Your task to perform on an android device: toggle translation in the chrome app Image 0: 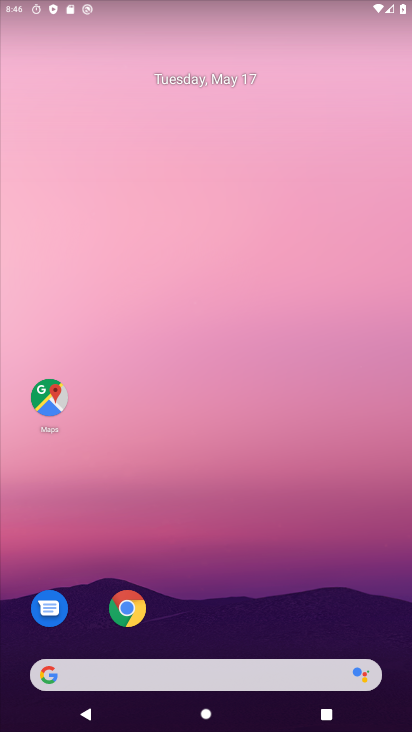
Step 0: drag from (244, 579) to (249, 95)
Your task to perform on an android device: toggle translation in the chrome app Image 1: 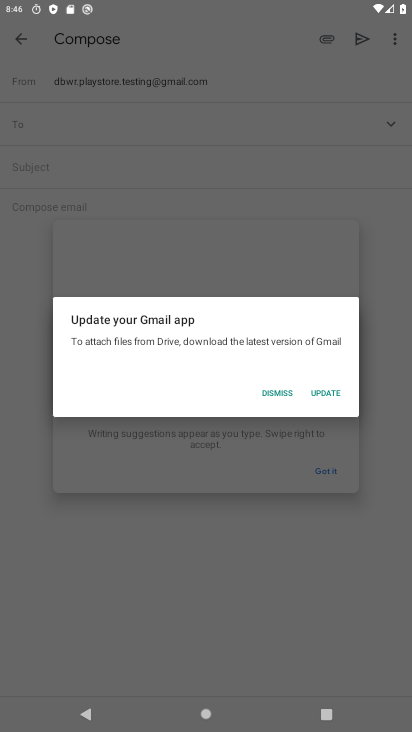
Step 1: press home button
Your task to perform on an android device: toggle translation in the chrome app Image 2: 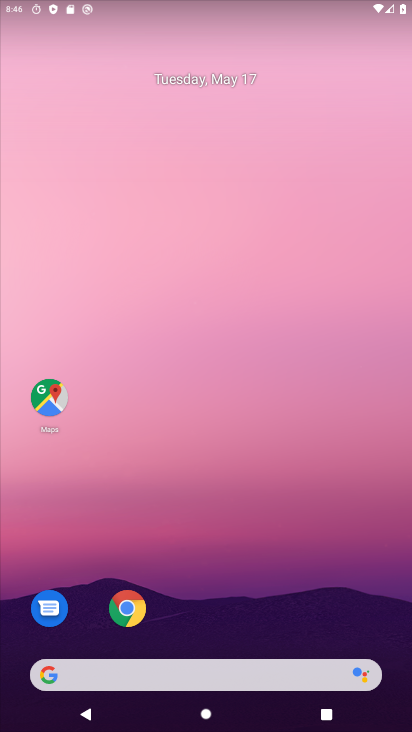
Step 2: drag from (259, 642) to (247, 193)
Your task to perform on an android device: toggle translation in the chrome app Image 3: 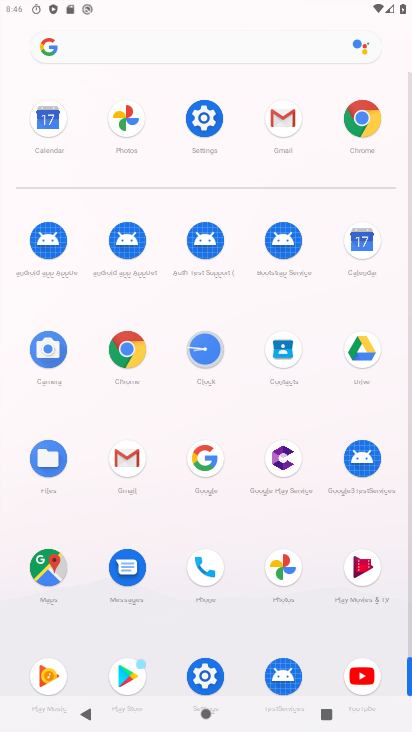
Step 3: click (119, 360)
Your task to perform on an android device: toggle translation in the chrome app Image 4: 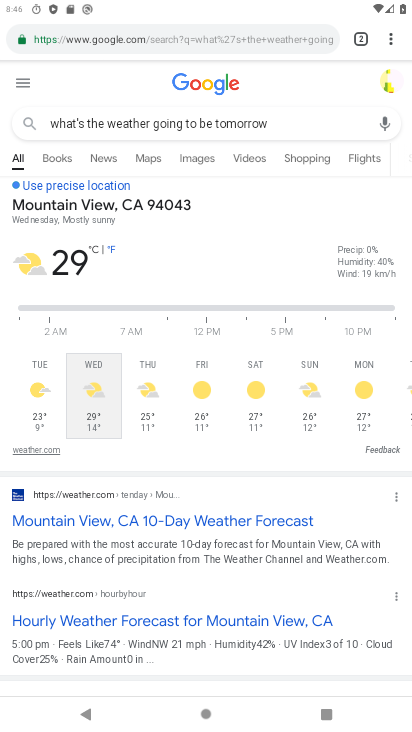
Step 4: click (287, 34)
Your task to perform on an android device: toggle translation in the chrome app Image 5: 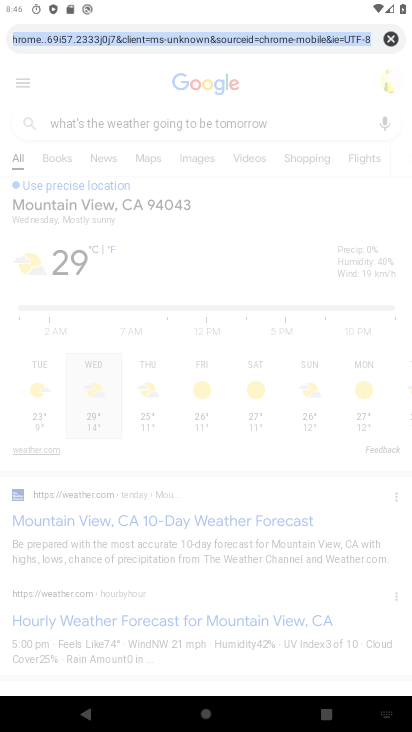
Step 5: click (384, 35)
Your task to perform on an android device: toggle translation in the chrome app Image 6: 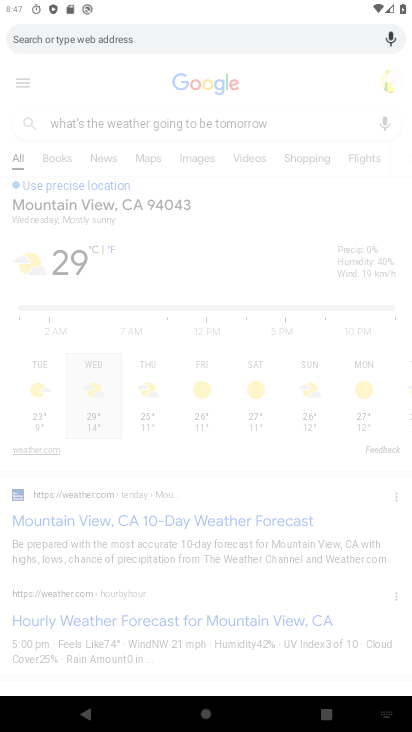
Step 6: press back button
Your task to perform on an android device: toggle translation in the chrome app Image 7: 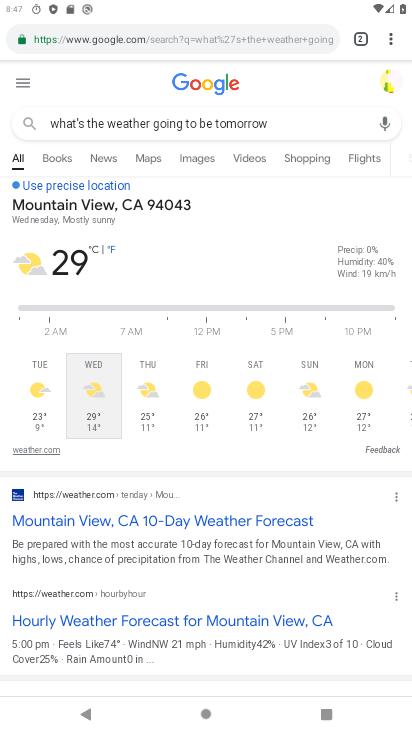
Step 7: drag from (390, 40) to (265, 435)
Your task to perform on an android device: toggle translation in the chrome app Image 8: 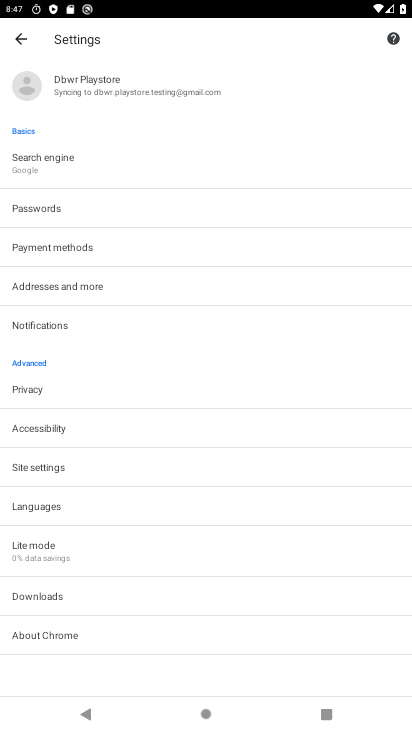
Step 8: drag from (112, 613) to (138, 320)
Your task to perform on an android device: toggle translation in the chrome app Image 9: 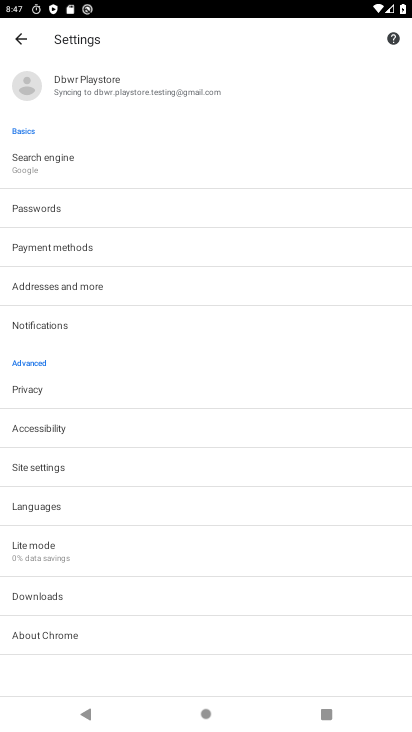
Step 9: click (106, 512)
Your task to perform on an android device: toggle translation in the chrome app Image 10: 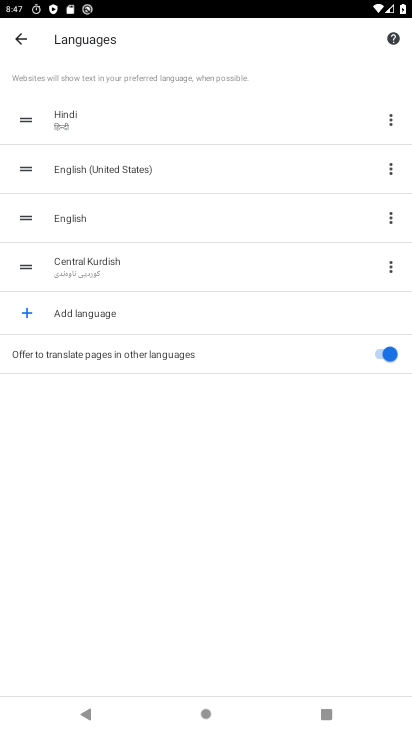
Step 10: click (371, 355)
Your task to perform on an android device: toggle translation in the chrome app Image 11: 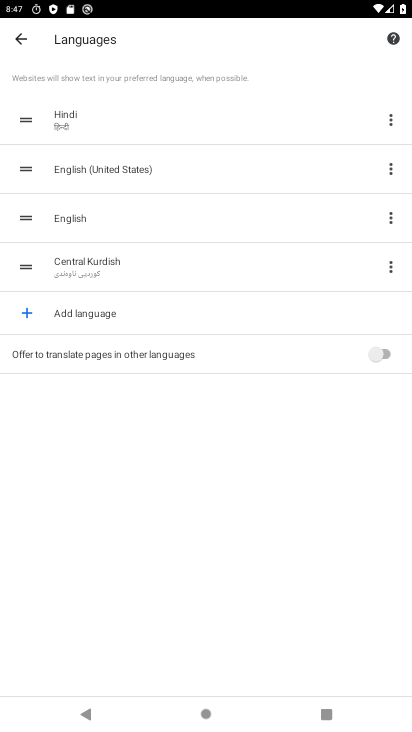
Step 11: task complete